Your task to perform on an android device: Open accessibility settings Image 0: 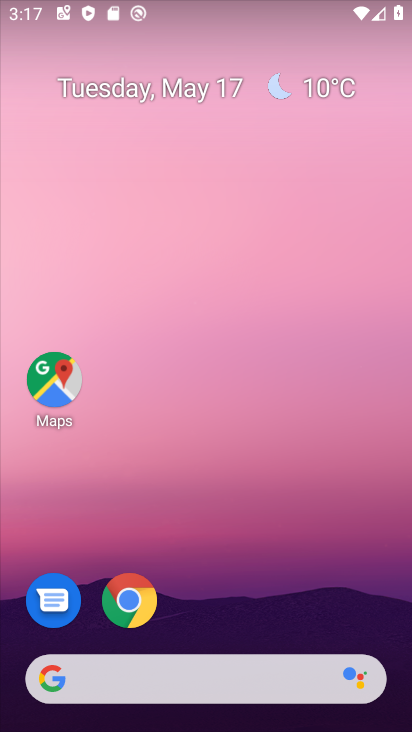
Step 0: drag from (235, 633) to (196, 277)
Your task to perform on an android device: Open accessibility settings Image 1: 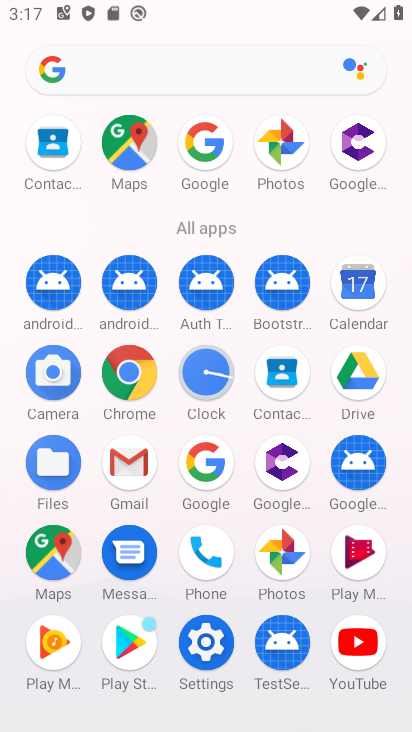
Step 1: click (215, 658)
Your task to perform on an android device: Open accessibility settings Image 2: 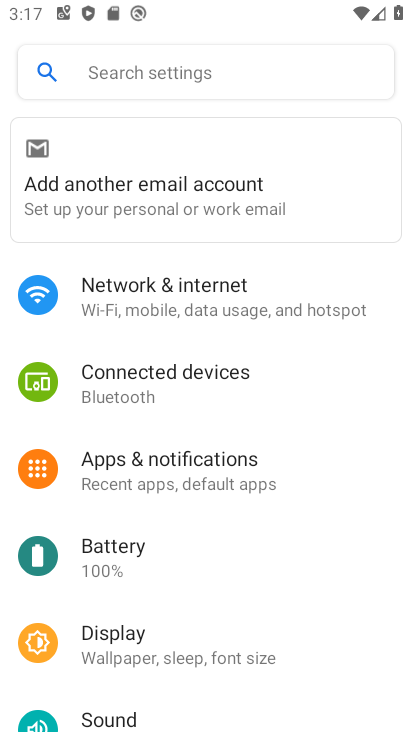
Step 2: drag from (244, 670) to (233, 176)
Your task to perform on an android device: Open accessibility settings Image 3: 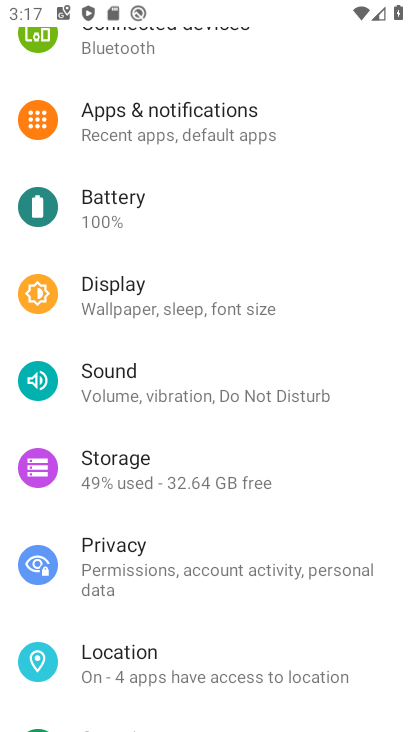
Step 3: drag from (217, 630) to (248, 247)
Your task to perform on an android device: Open accessibility settings Image 4: 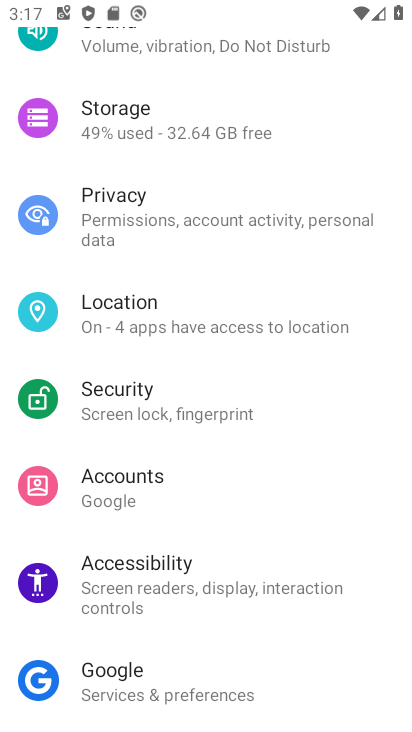
Step 4: click (215, 585)
Your task to perform on an android device: Open accessibility settings Image 5: 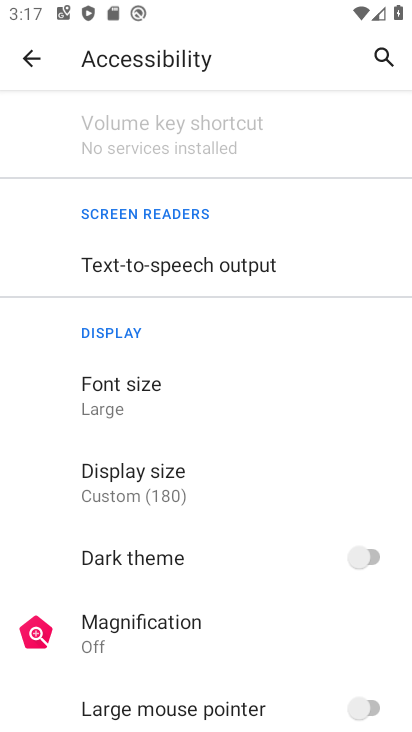
Step 5: task complete